Your task to perform on an android device: open app "Instagram" (install if not already installed) Image 0: 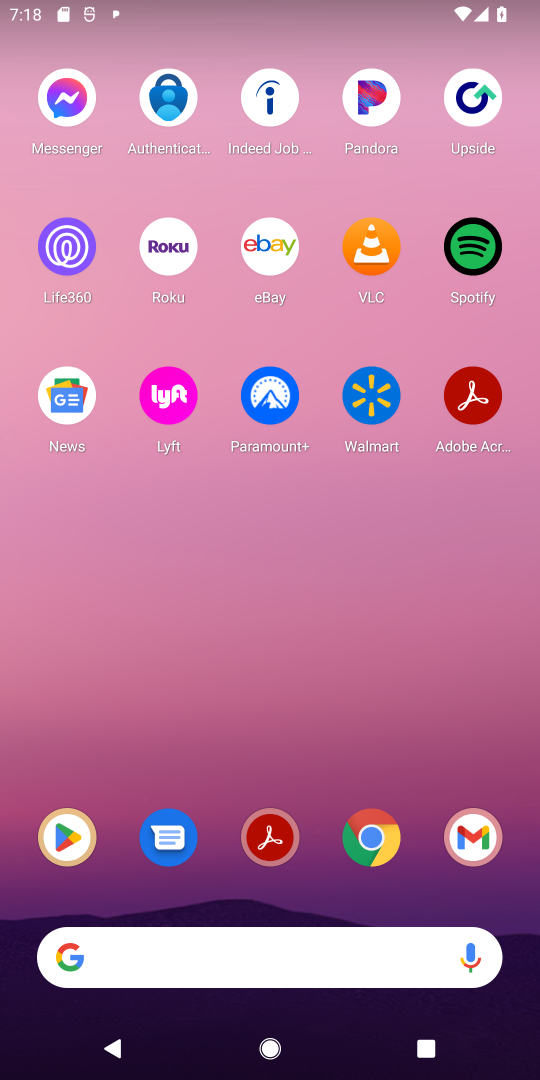
Step 0: click (64, 833)
Your task to perform on an android device: open app "Instagram" (install if not already installed) Image 1: 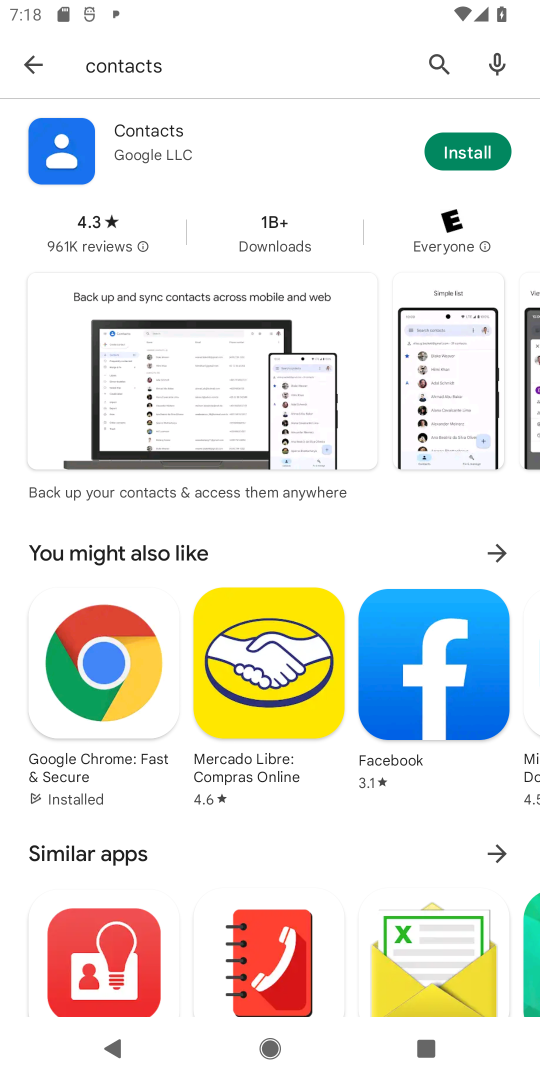
Step 1: click (439, 67)
Your task to perform on an android device: open app "Instagram" (install if not already installed) Image 2: 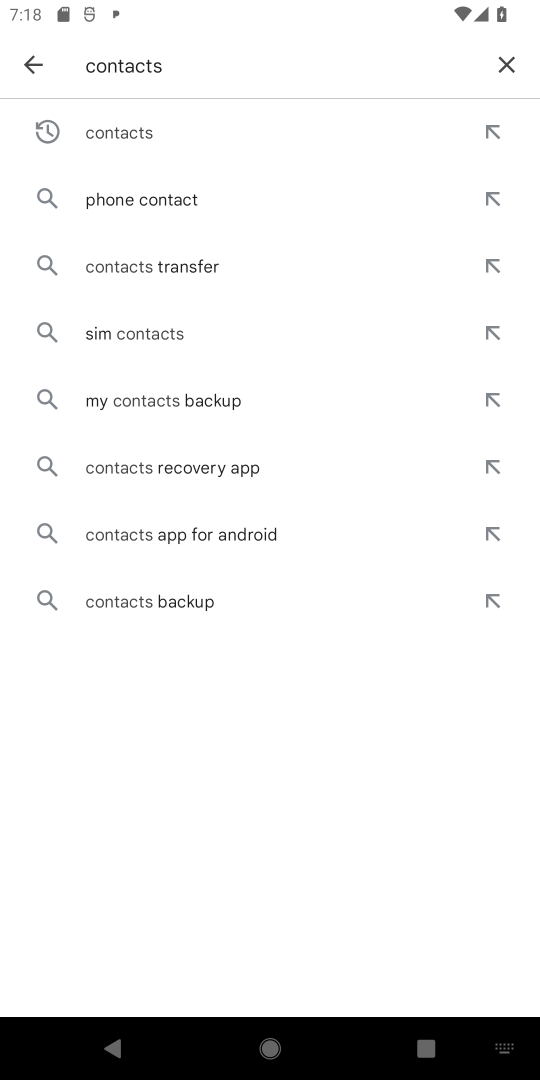
Step 2: click (503, 67)
Your task to perform on an android device: open app "Instagram" (install if not already installed) Image 3: 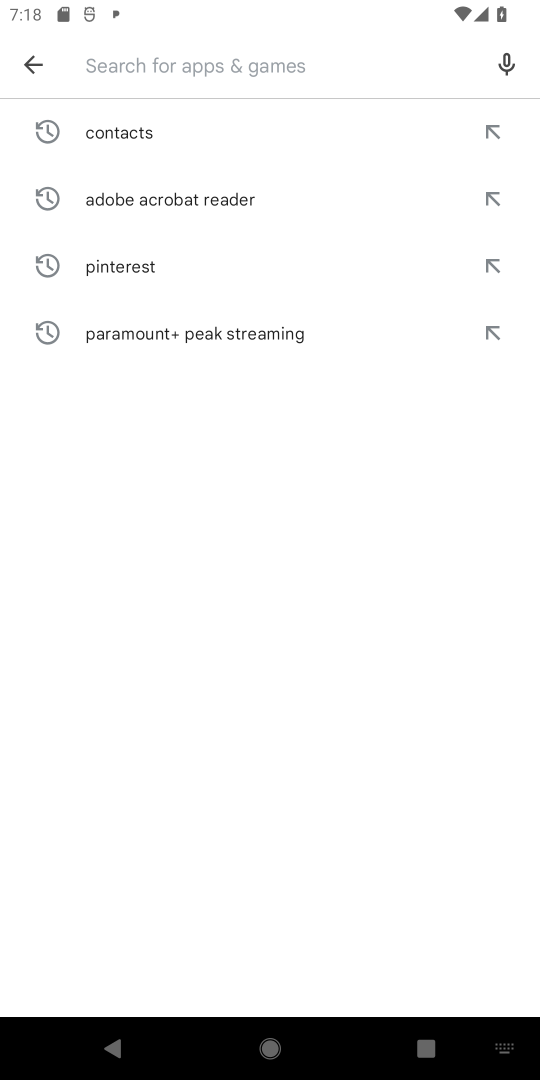
Step 3: type "Instagram"
Your task to perform on an android device: open app "Instagram" (install if not already installed) Image 4: 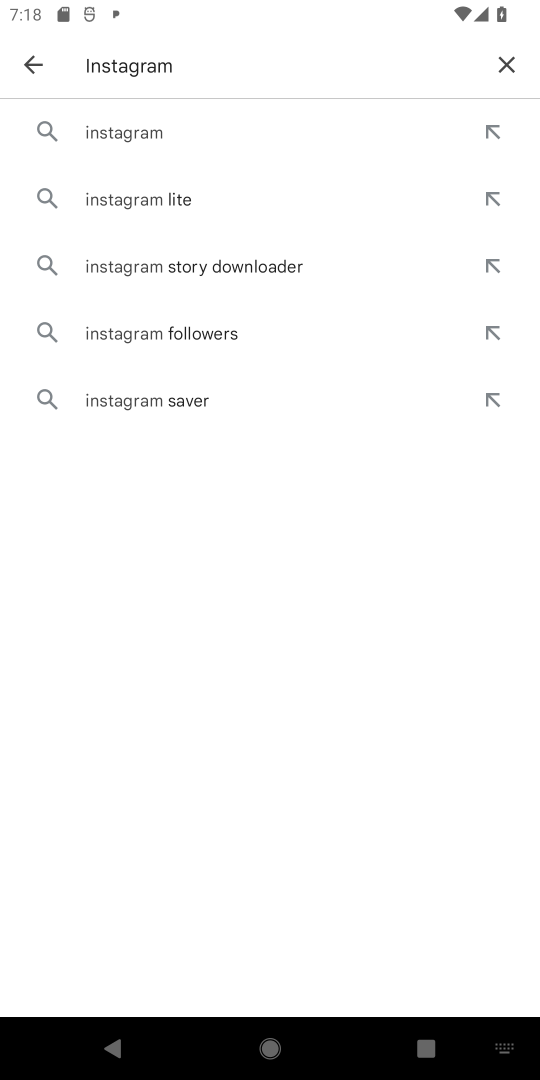
Step 4: click (140, 141)
Your task to perform on an android device: open app "Instagram" (install if not already installed) Image 5: 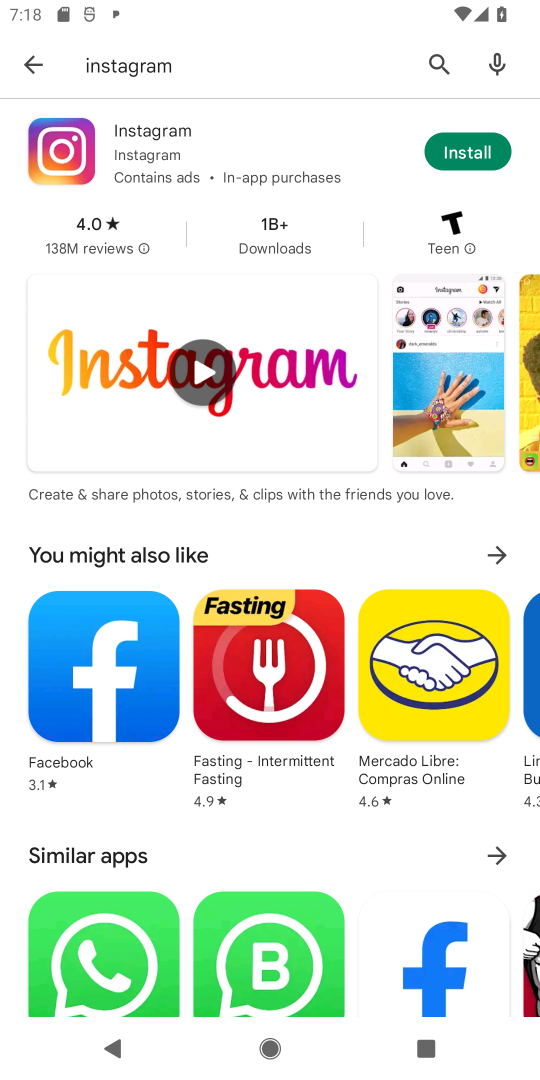
Step 5: click (465, 154)
Your task to perform on an android device: open app "Instagram" (install if not already installed) Image 6: 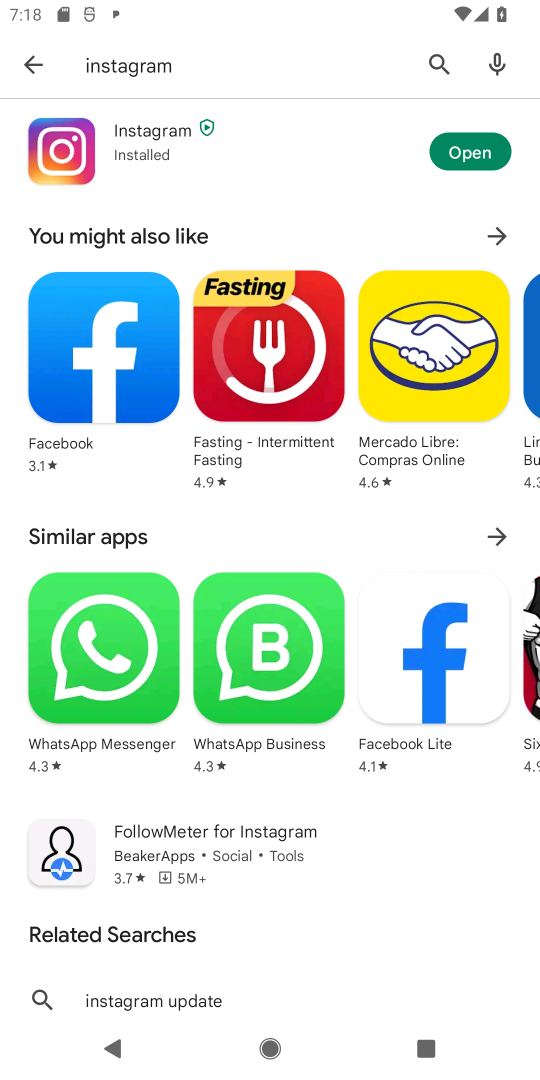
Step 6: click (465, 154)
Your task to perform on an android device: open app "Instagram" (install if not already installed) Image 7: 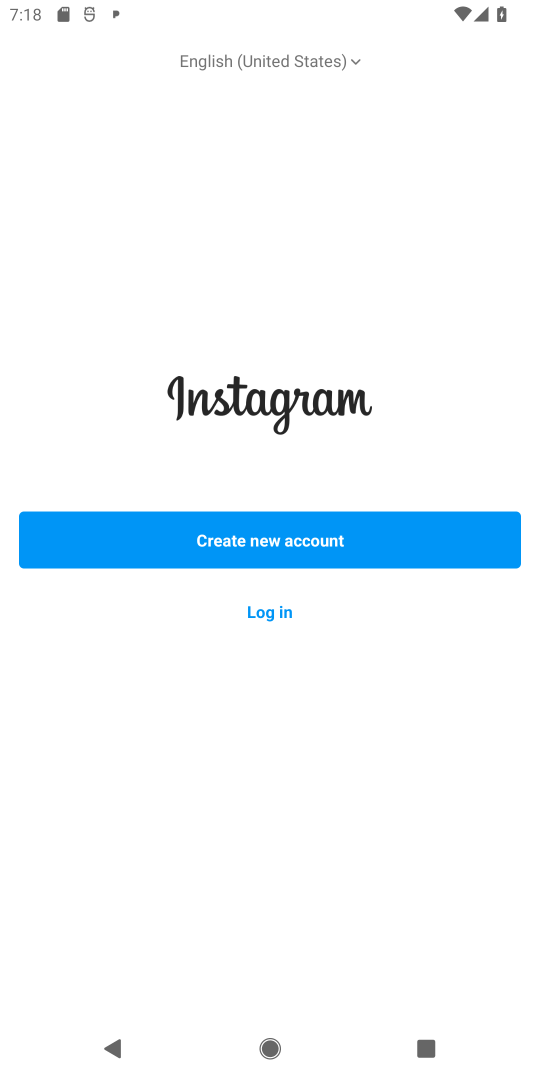
Step 7: task complete